Your task to perform on an android device: Open settings on Google Maps Image 0: 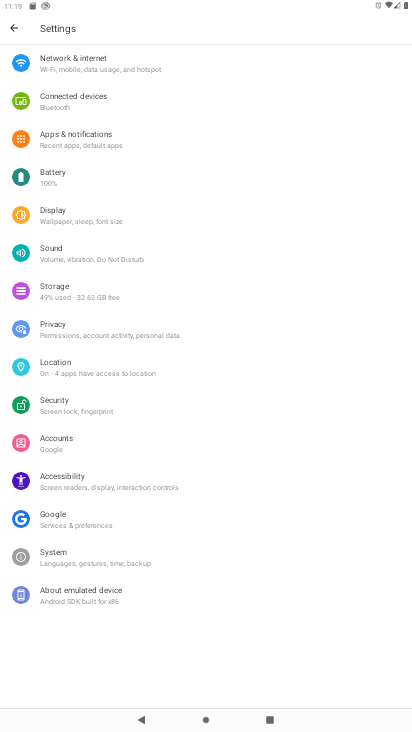
Step 0: press home button
Your task to perform on an android device: Open settings on Google Maps Image 1: 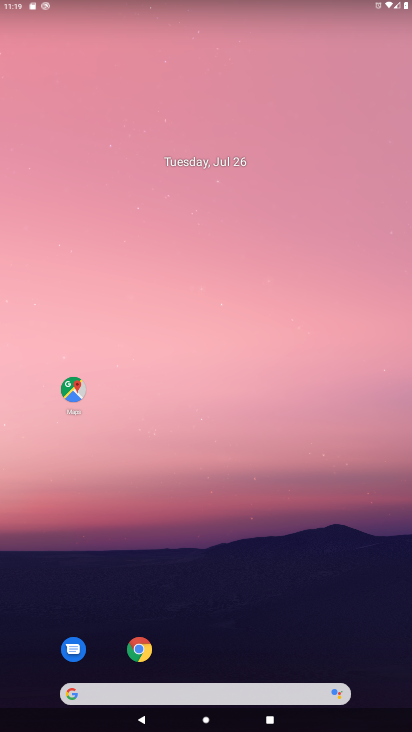
Step 1: click (76, 404)
Your task to perform on an android device: Open settings on Google Maps Image 2: 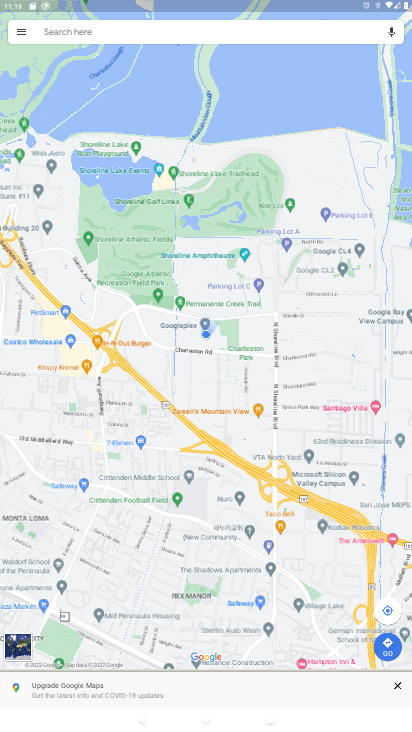
Step 2: click (14, 23)
Your task to perform on an android device: Open settings on Google Maps Image 3: 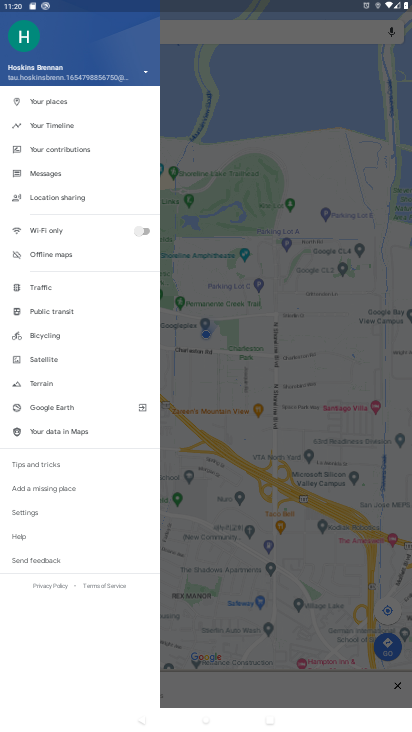
Step 3: click (35, 514)
Your task to perform on an android device: Open settings on Google Maps Image 4: 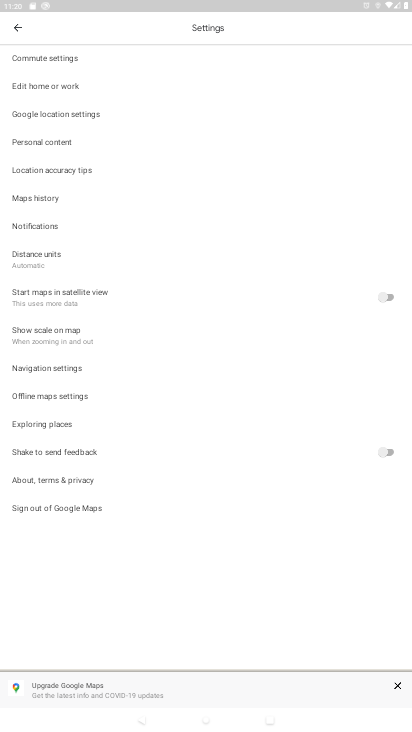
Step 4: task complete